Your task to perform on an android device: Open ESPN.com Image 0: 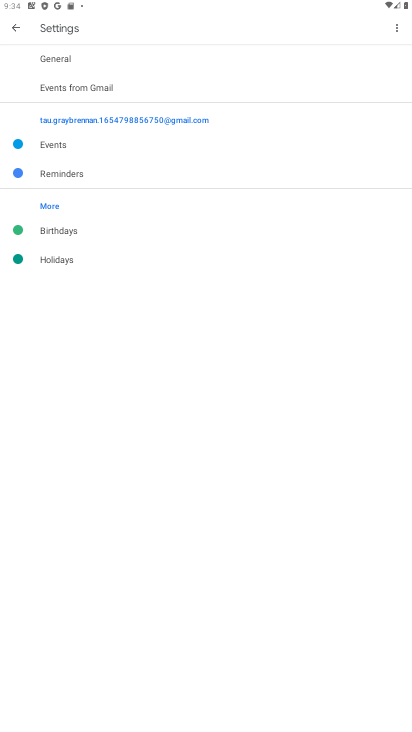
Step 0: press home button
Your task to perform on an android device: Open ESPN.com Image 1: 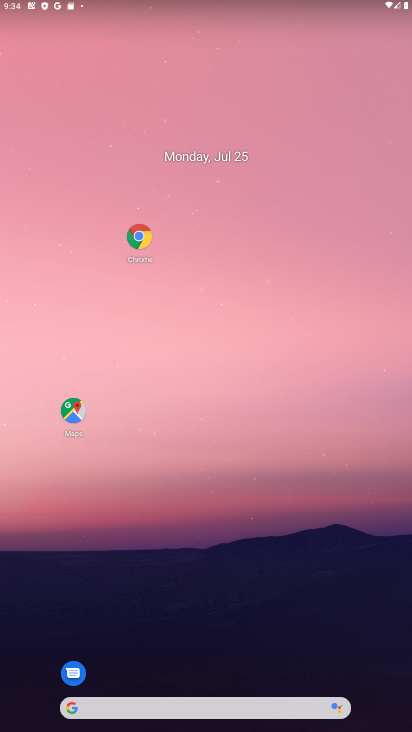
Step 1: click (170, 712)
Your task to perform on an android device: Open ESPN.com Image 2: 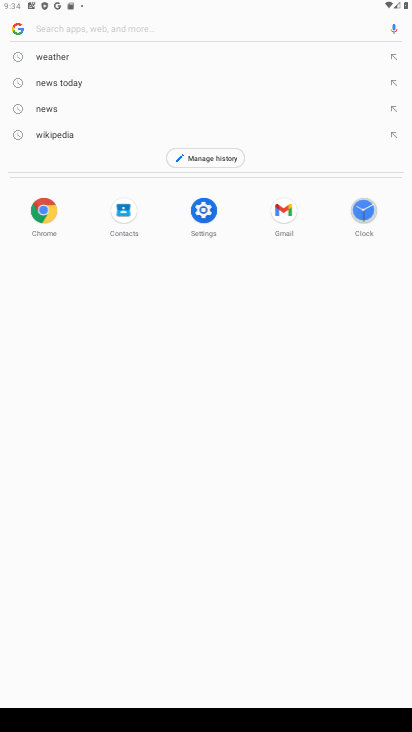
Step 2: type "espn.com"
Your task to perform on an android device: Open ESPN.com Image 3: 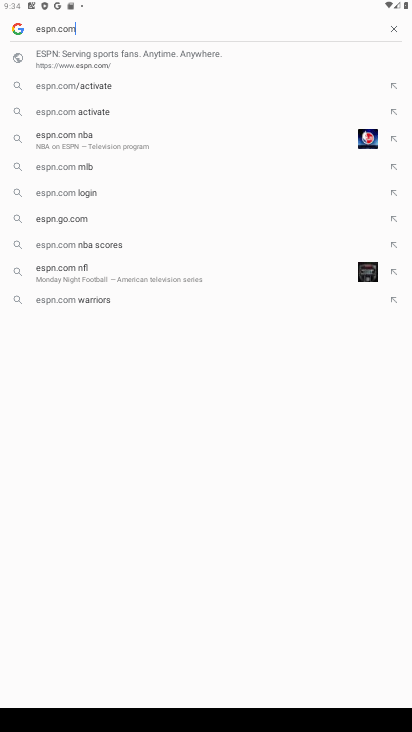
Step 3: click (179, 73)
Your task to perform on an android device: Open ESPN.com Image 4: 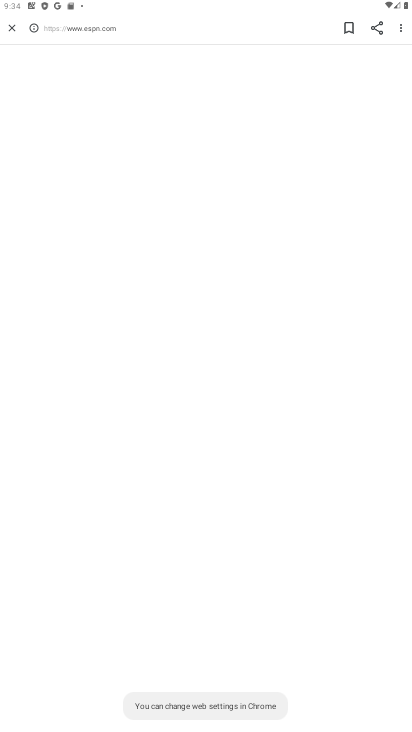
Step 4: task complete